Your task to perform on an android device: turn on showing notifications on the lock screen Image 0: 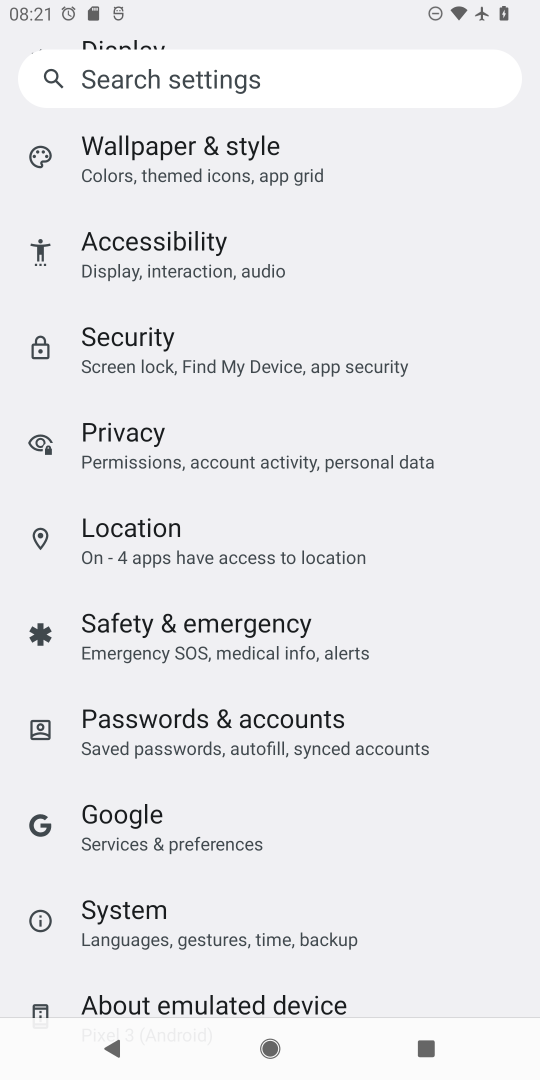
Step 0: drag from (206, 190) to (207, 606)
Your task to perform on an android device: turn on showing notifications on the lock screen Image 1: 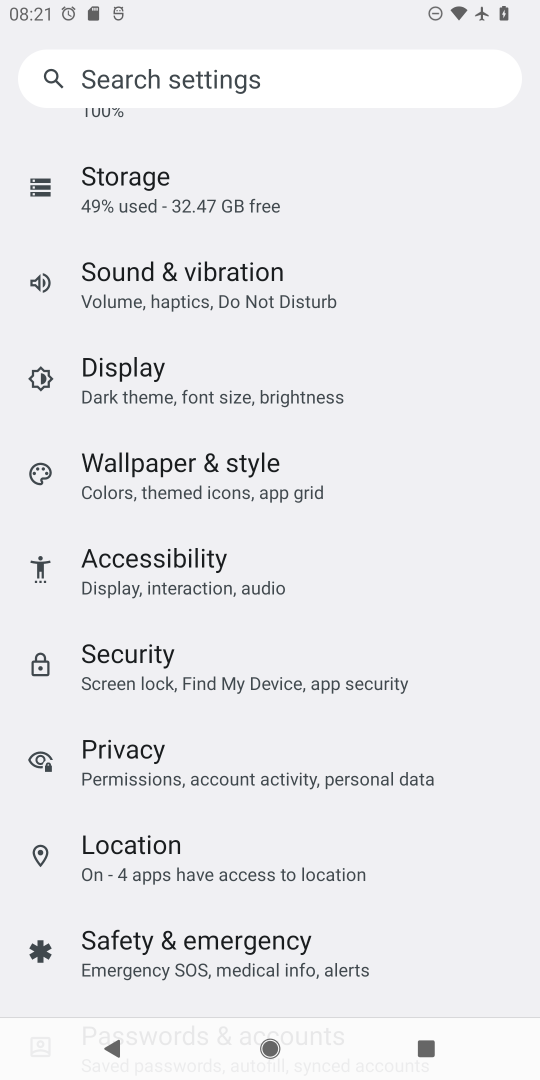
Step 1: drag from (177, 175) to (206, 904)
Your task to perform on an android device: turn on showing notifications on the lock screen Image 2: 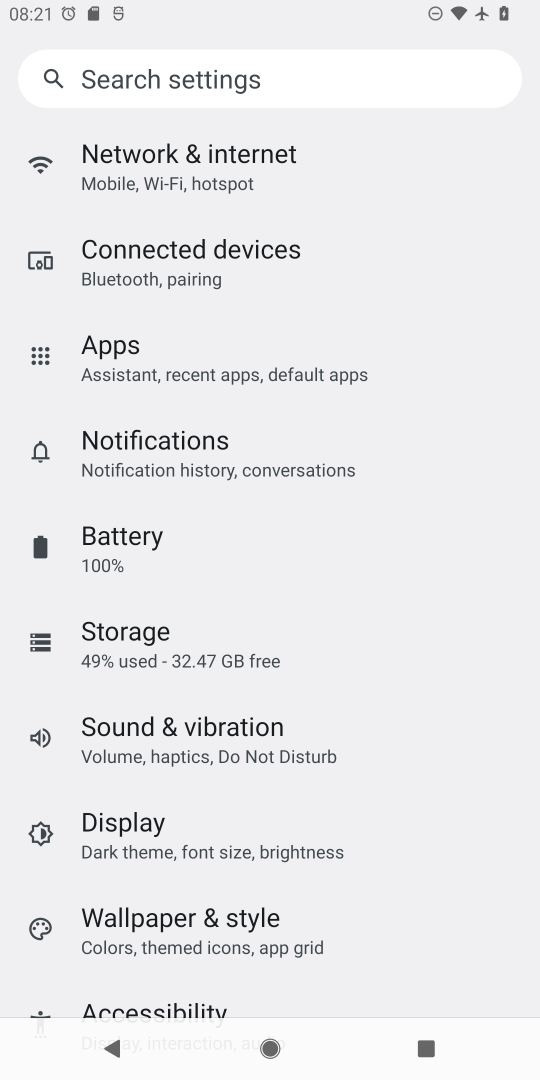
Step 2: click (176, 142)
Your task to perform on an android device: turn on showing notifications on the lock screen Image 3: 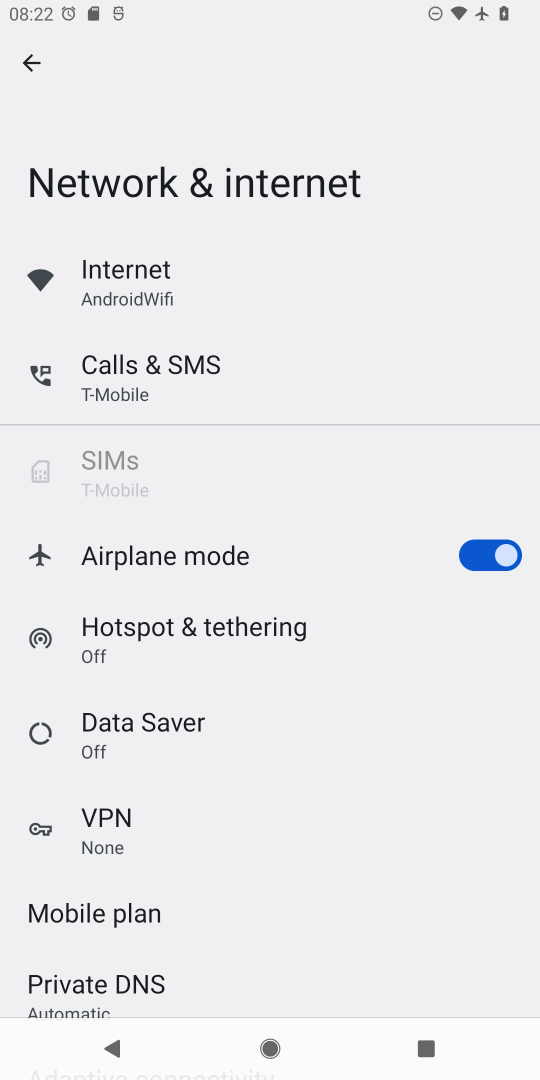
Step 3: click (40, 55)
Your task to perform on an android device: turn on showing notifications on the lock screen Image 4: 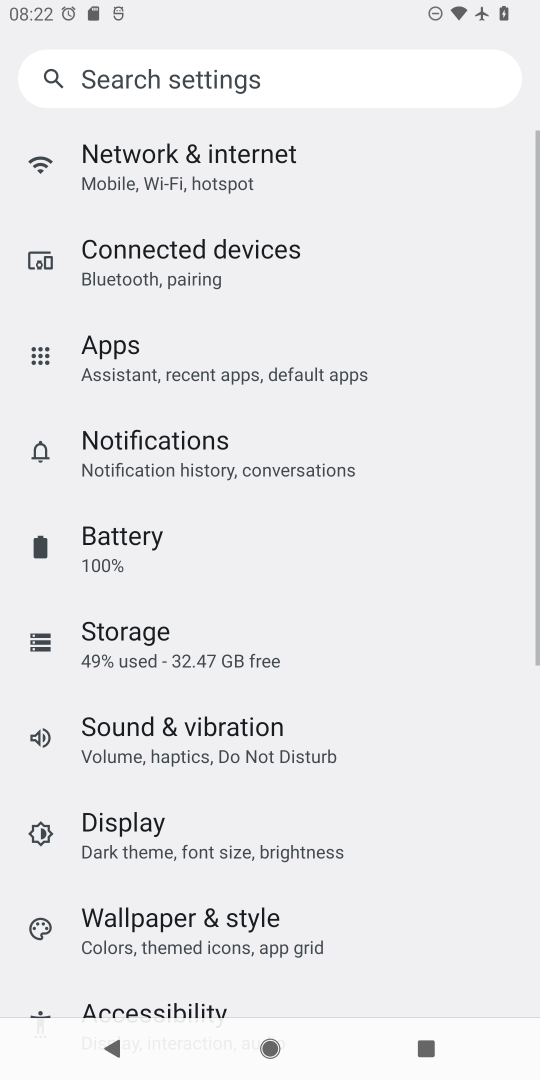
Step 4: click (237, 466)
Your task to perform on an android device: turn on showing notifications on the lock screen Image 5: 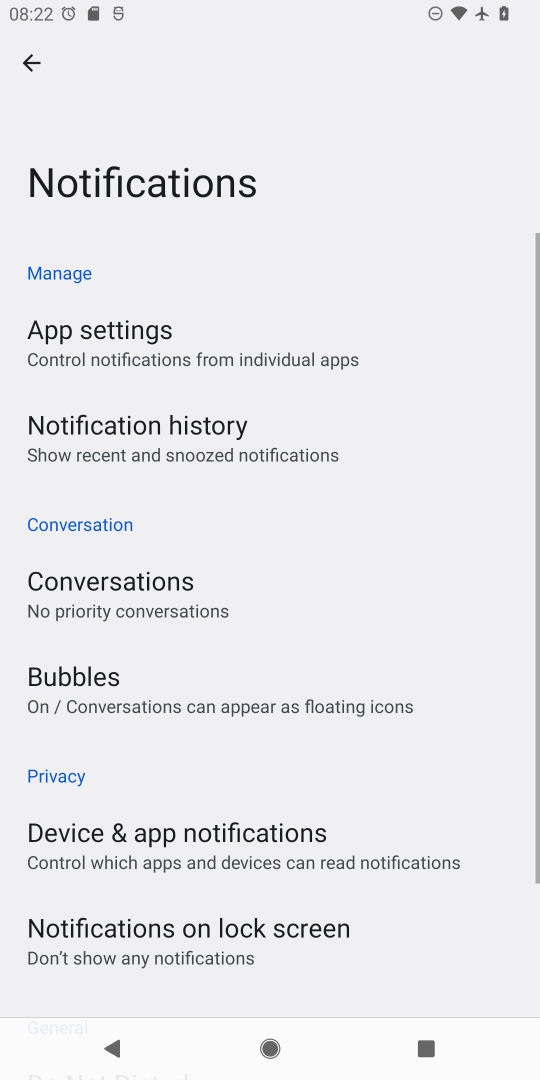
Step 5: click (268, 951)
Your task to perform on an android device: turn on showing notifications on the lock screen Image 6: 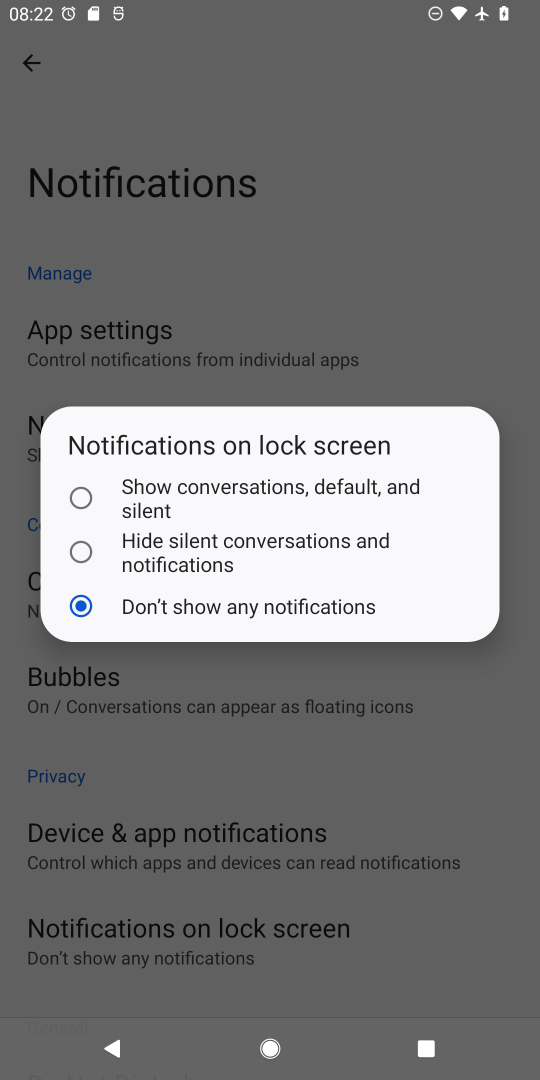
Step 6: click (181, 473)
Your task to perform on an android device: turn on showing notifications on the lock screen Image 7: 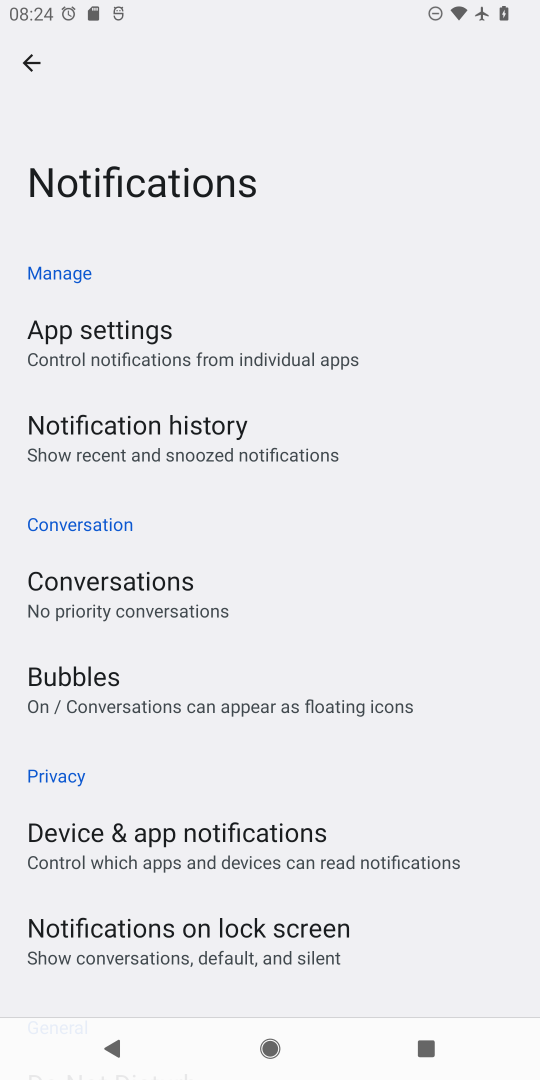
Step 7: task complete